Your task to perform on an android device: Open the phone app and click the voicemail tab. Image 0: 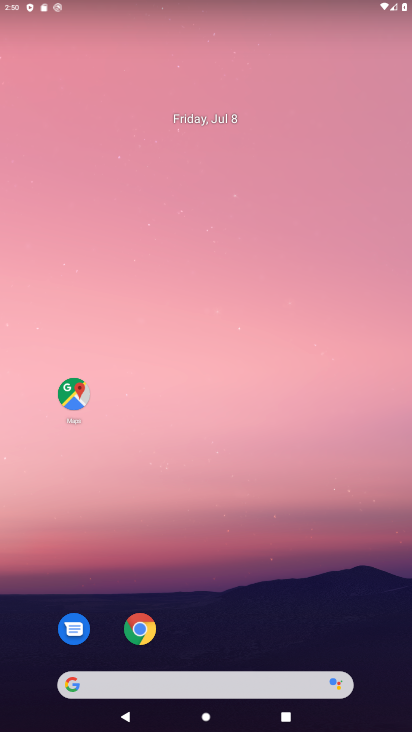
Step 0: drag from (149, 652) to (266, 134)
Your task to perform on an android device: Open the phone app and click the voicemail tab. Image 1: 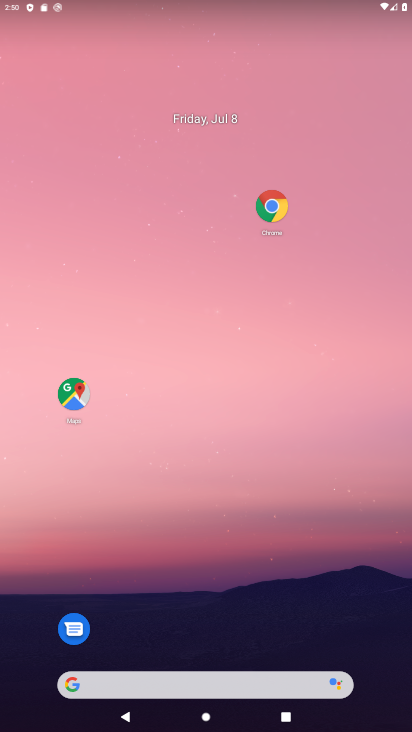
Step 1: drag from (210, 621) to (245, 268)
Your task to perform on an android device: Open the phone app and click the voicemail tab. Image 2: 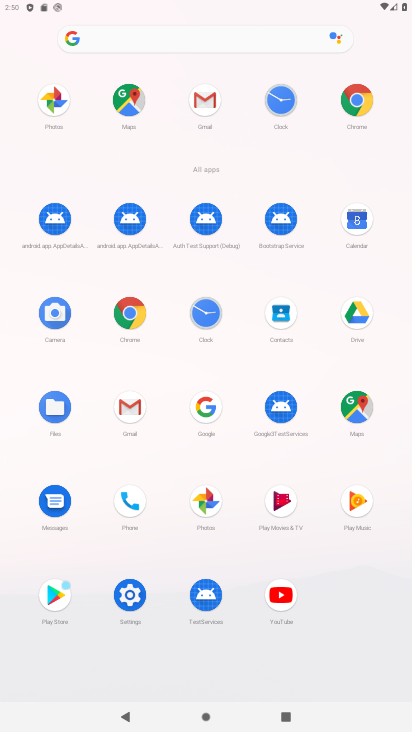
Step 2: click (122, 501)
Your task to perform on an android device: Open the phone app and click the voicemail tab. Image 3: 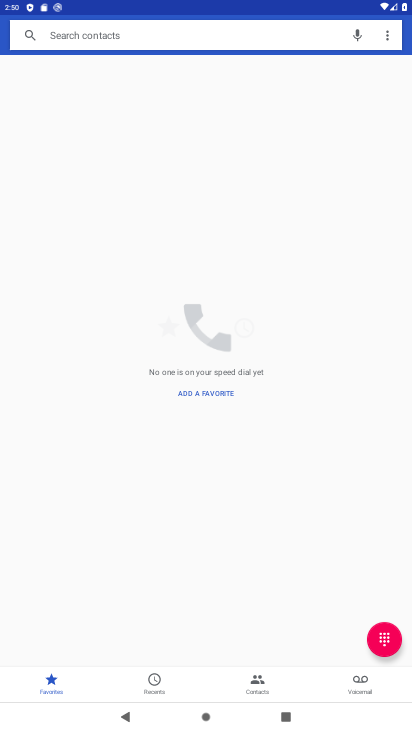
Step 3: drag from (253, 556) to (253, 377)
Your task to perform on an android device: Open the phone app and click the voicemail tab. Image 4: 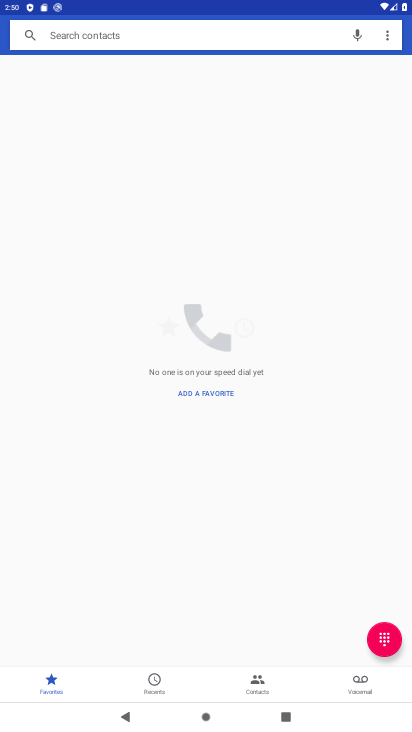
Step 4: click (361, 684)
Your task to perform on an android device: Open the phone app and click the voicemail tab. Image 5: 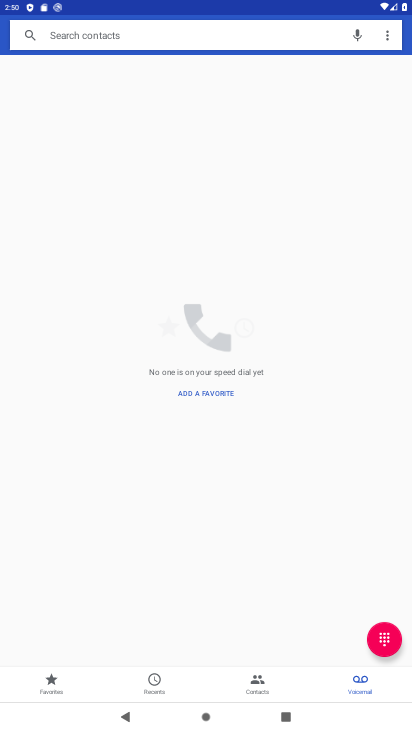
Step 5: drag from (301, 587) to (344, 340)
Your task to perform on an android device: Open the phone app and click the voicemail tab. Image 6: 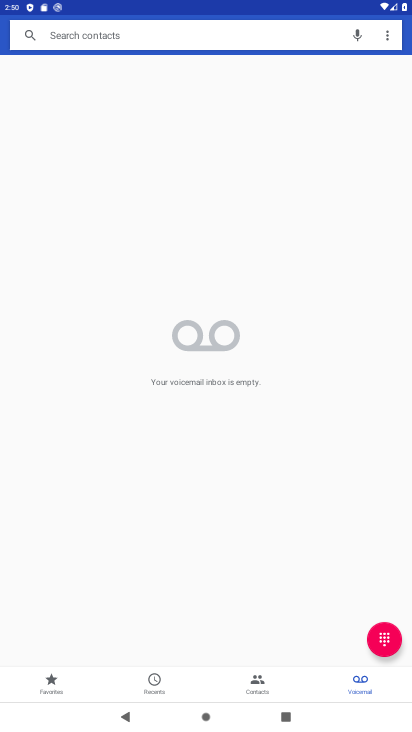
Step 6: drag from (156, 525) to (227, 177)
Your task to perform on an android device: Open the phone app and click the voicemail tab. Image 7: 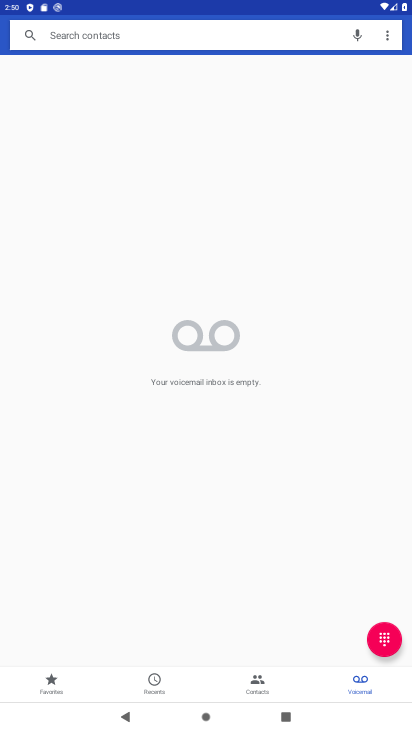
Step 7: click (356, 686)
Your task to perform on an android device: Open the phone app and click the voicemail tab. Image 8: 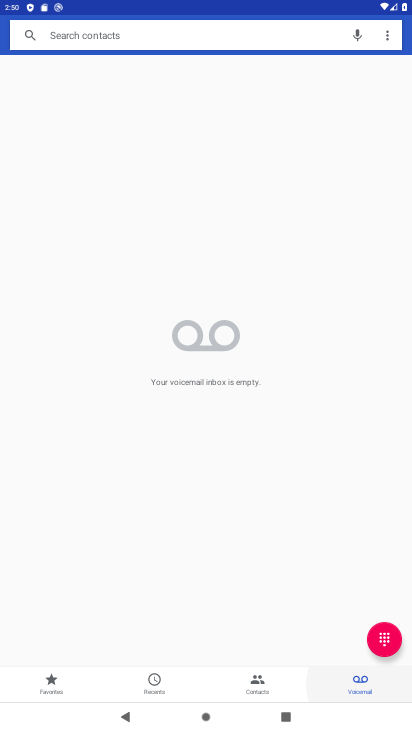
Step 8: task complete